Your task to perform on an android device: Go to internet settings Image 0: 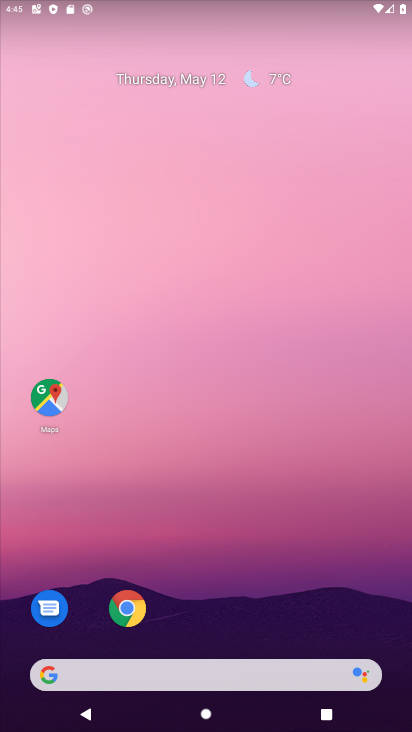
Step 0: drag from (179, 13) to (152, 507)
Your task to perform on an android device: Go to internet settings Image 1: 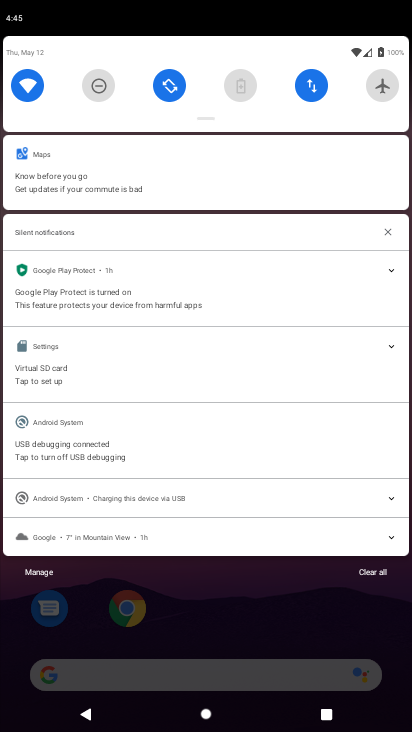
Step 1: click (300, 92)
Your task to perform on an android device: Go to internet settings Image 2: 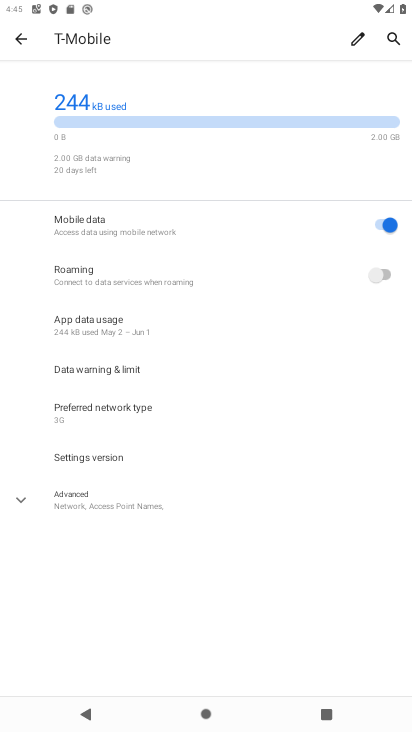
Step 2: task complete